Your task to perform on an android device: Open the calendar app, open the side menu, and click the "Day" option Image 0: 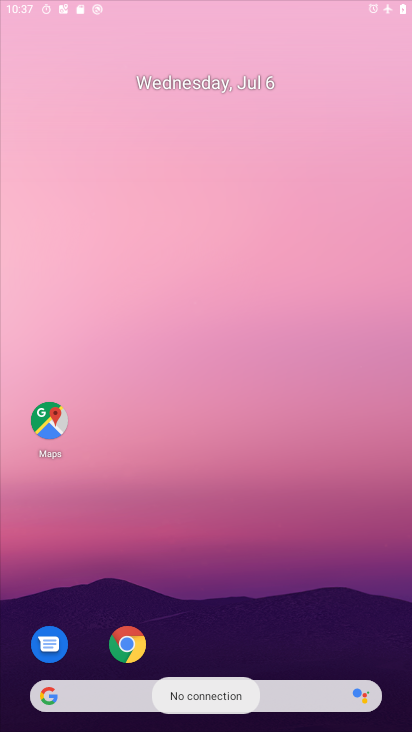
Step 0: drag from (226, 520) to (406, 577)
Your task to perform on an android device: Open the calendar app, open the side menu, and click the "Day" option Image 1: 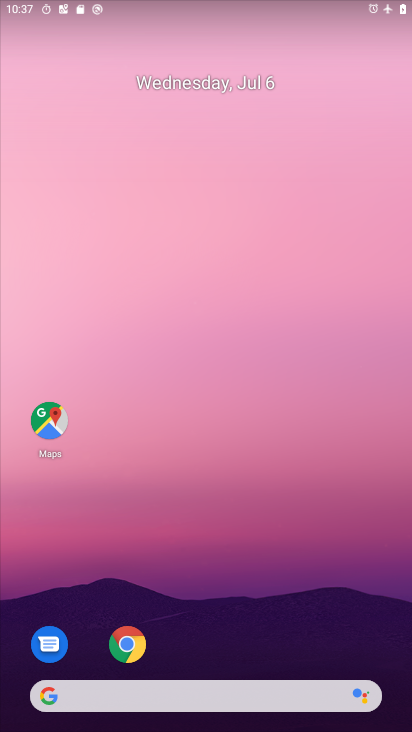
Step 1: drag from (249, 457) to (249, 200)
Your task to perform on an android device: Open the calendar app, open the side menu, and click the "Day" option Image 2: 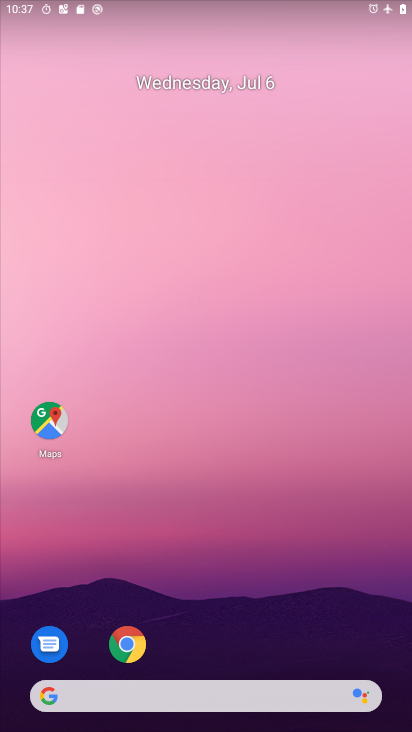
Step 2: drag from (216, 615) to (407, 3)
Your task to perform on an android device: Open the calendar app, open the side menu, and click the "Day" option Image 3: 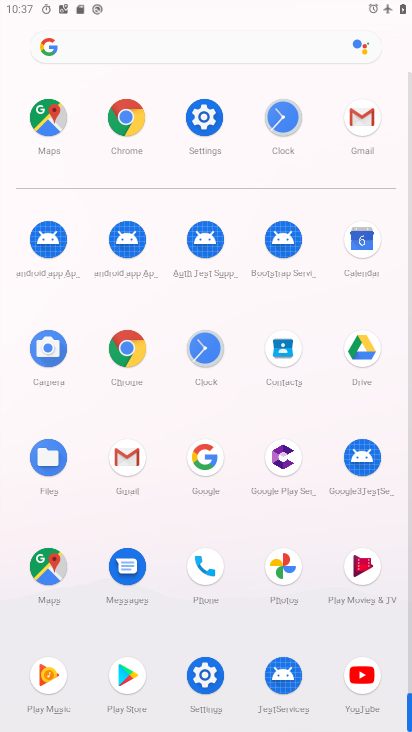
Step 3: click (363, 251)
Your task to perform on an android device: Open the calendar app, open the side menu, and click the "Day" option Image 4: 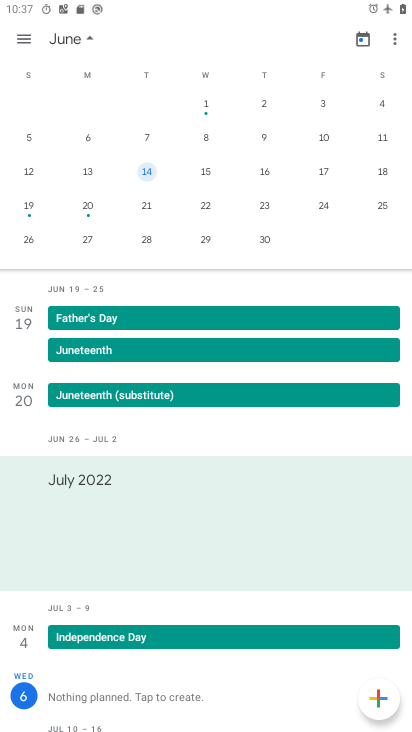
Step 4: click (24, 43)
Your task to perform on an android device: Open the calendar app, open the side menu, and click the "Day" option Image 5: 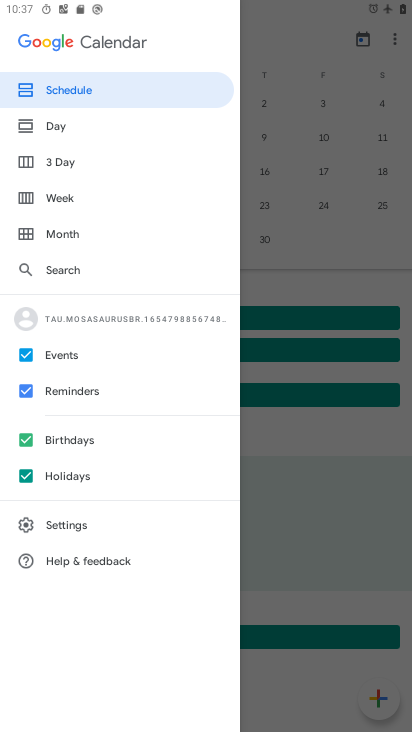
Step 5: click (68, 123)
Your task to perform on an android device: Open the calendar app, open the side menu, and click the "Day" option Image 6: 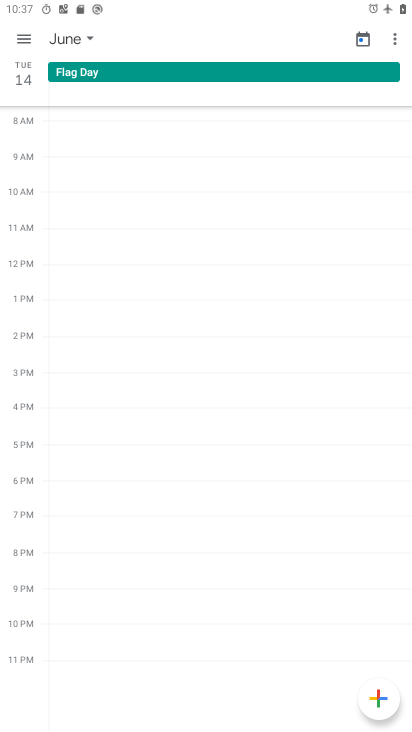
Step 6: task complete